Your task to perform on an android device: Clear all items from cart on costco. Search for rayovac triple a on costco, select the first entry, and add it to the cart. Image 0: 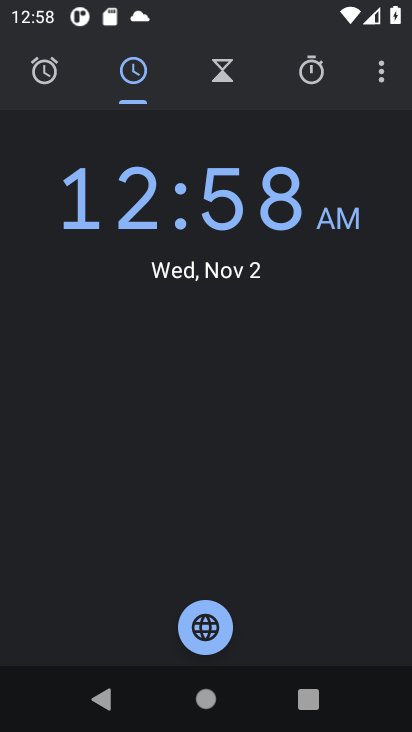
Step 0: press home button
Your task to perform on an android device: Clear all items from cart on costco. Search for rayovac triple a on costco, select the first entry, and add it to the cart. Image 1: 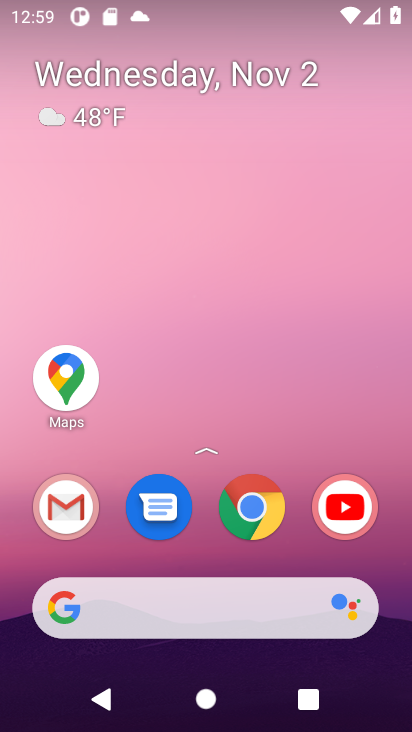
Step 1: click (178, 610)
Your task to perform on an android device: Clear all items from cart on costco. Search for rayovac triple a on costco, select the first entry, and add it to the cart. Image 2: 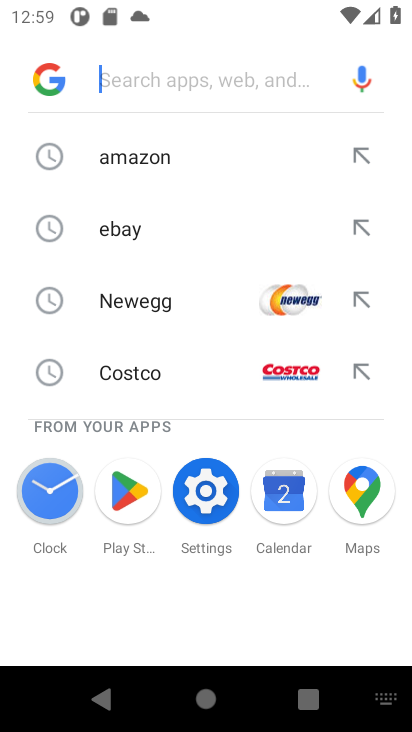
Step 2: click (175, 89)
Your task to perform on an android device: Clear all items from cart on costco. Search for rayovac triple a on costco, select the first entry, and add it to the cart. Image 3: 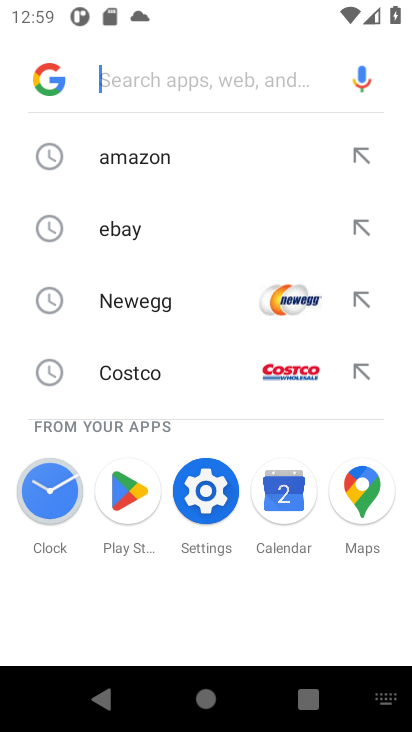
Step 3: type "costco"
Your task to perform on an android device: Clear all items from cart on costco. Search for rayovac triple a on costco, select the first entry, and add it to the cart. Image 4: 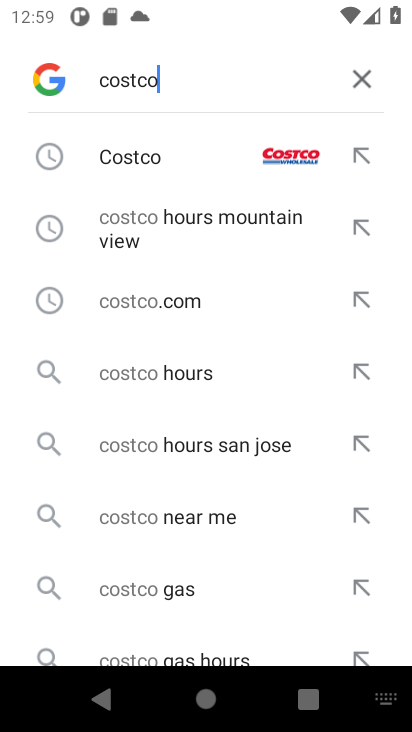
Step 4: type ""
Your task to perform on an android device: Clear all items from cart on costco. Search for rayovac triple a on costco, select the first entry, and add it to the cart. Image 5: 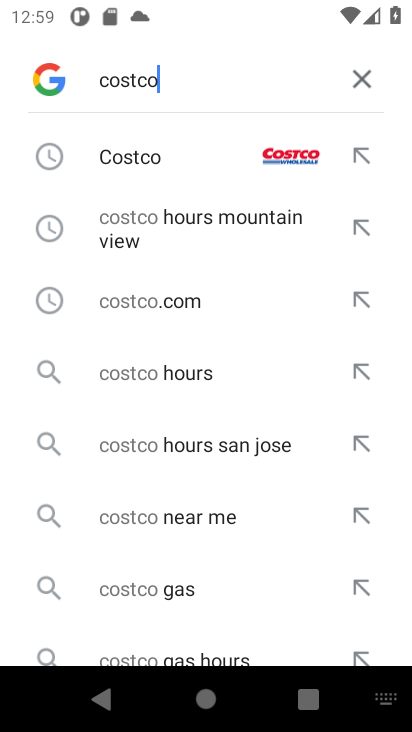
Step 5: click (143, 164)
Your task to perform on an android device: Clear all items from cart on costco. Search for rayovac triple a on costco, select the first entry, and add it to the cart. Image 6: 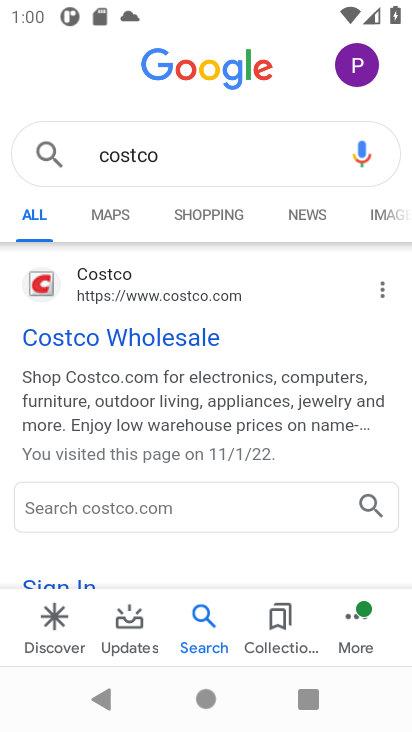
Step 6: click (101, 293)
Your task to perform on an android device: Clear all items from cart on costco. Search for rayovac triple a on costco, select the first entry, and add it to the cart. Image 7: 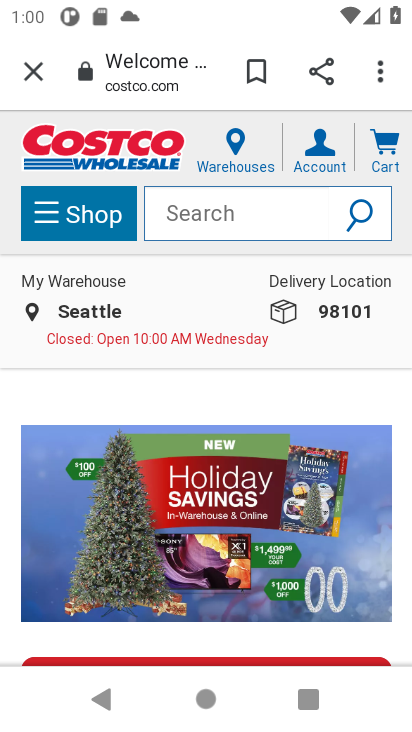
Step 7: click (257, 226)
Your task to perform on an android device: Clear all items from cart on costco. Search for rayovac triple a on costco, select the first entry, and add it to the cart. Image 8: 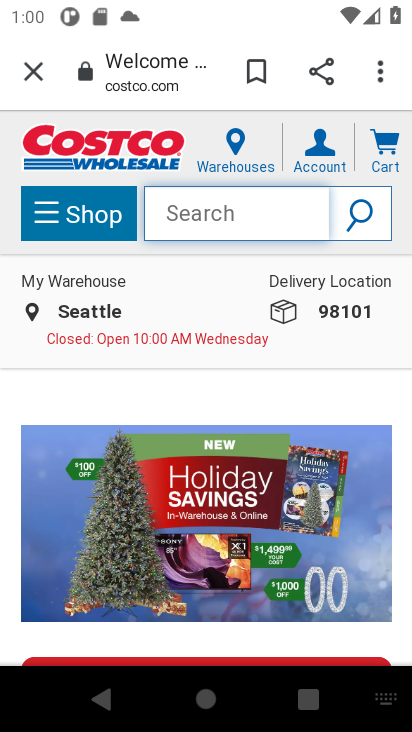
Step 8: click (242, 224)
Your task to perform on an android device: Clear all items from cart on costco. Search for rayovac triple a on costco, select the first entry, and add it to the cart. Image 9: 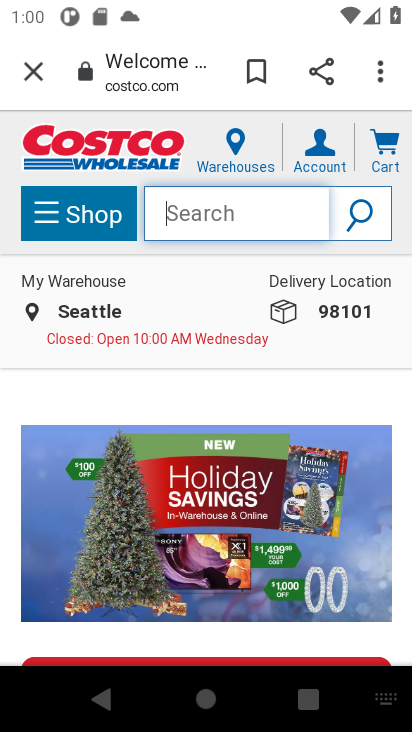
Step 9: type "rayovac triple a"
Your task to perform on an android device: Clear all items from cart on costco. Search for rayovac triple a on costco, select the first entry, and add it to the cart. Image 10: 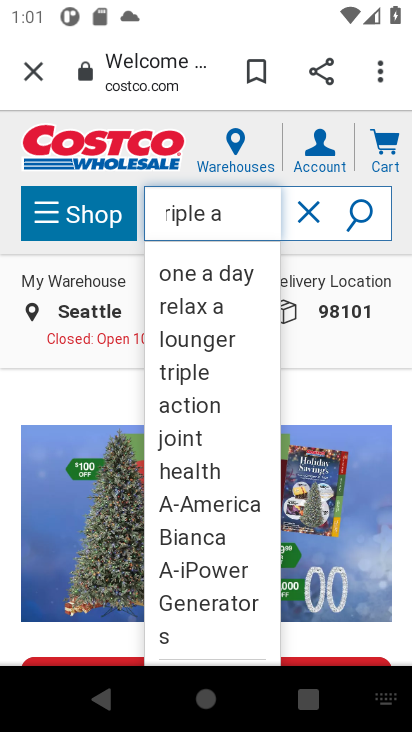
Step 10: click (348, 213)
Your task to perform on an android device: Clear all items from cart on costco. Search for rayovac triple a on costco, select the first entry, and add it to the cart. Image 11: 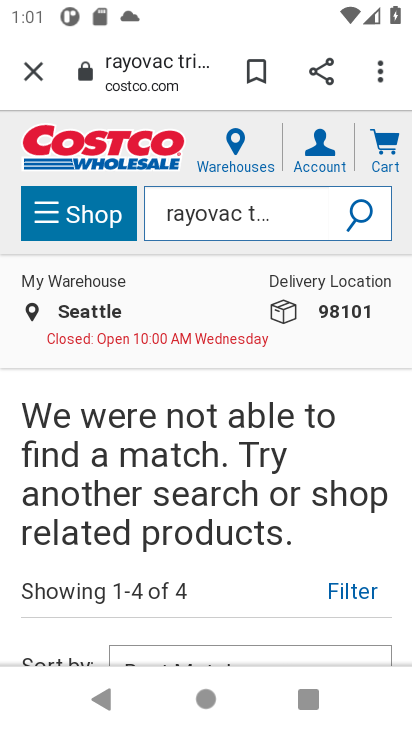
Step 11: task complete